Your task to perform on an android device: change timer sound Image 0: 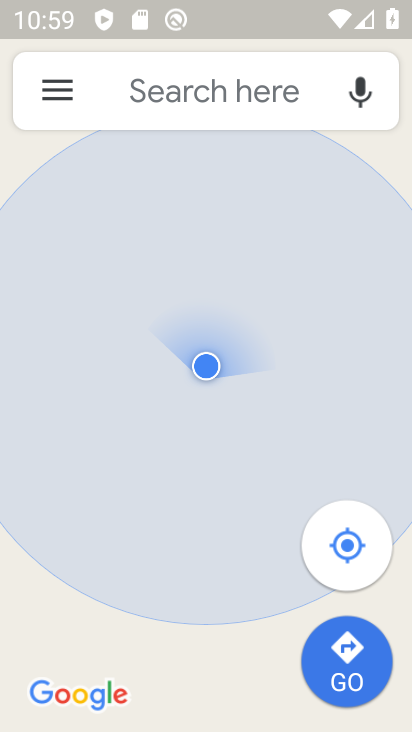
Step 0: press home button
Your task to perform on an android device: change timer sound Image 1: 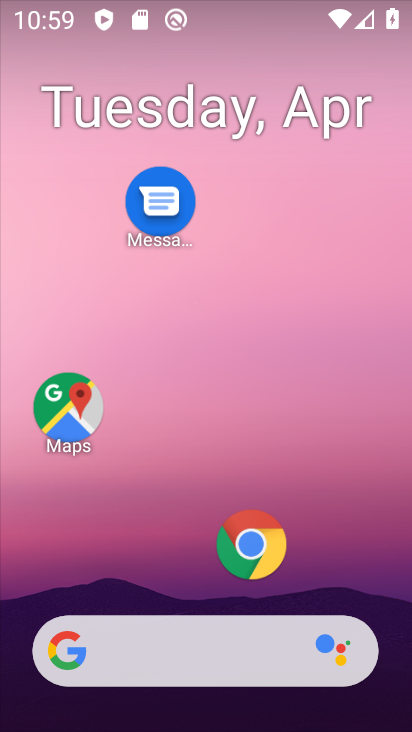
Step 1: drag from (153, 453) to (317, 0)
Your task to perform on an android device: change timer sound Image 2: 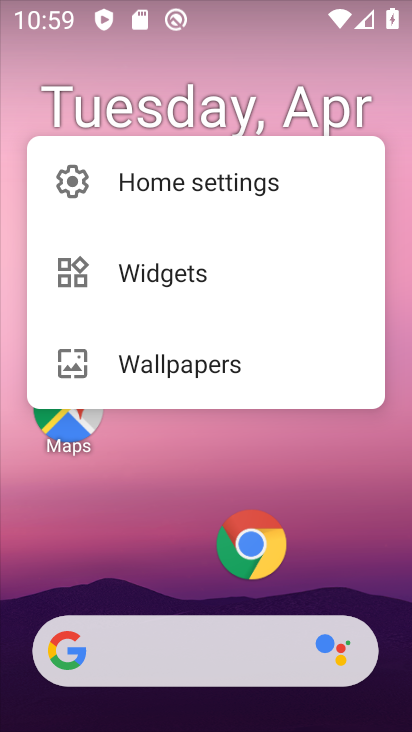
Step 2: click (199, 543)
Your task to perform on an android device: change timer sound Image 3: 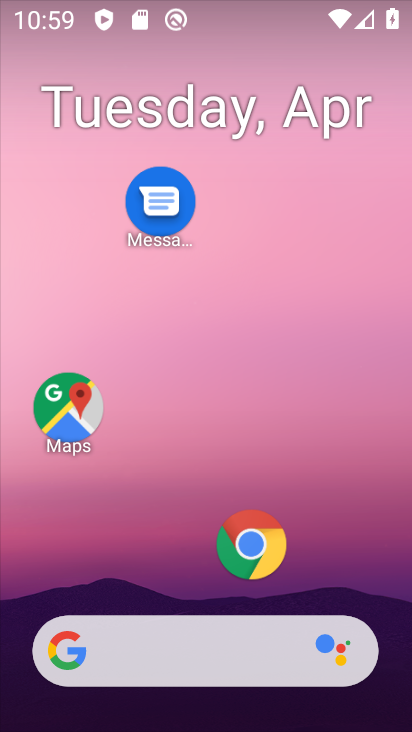
Step 3: drag from (160, 580) to (309, 7)
Your task to perform on an android device: change timer sound Image 4: 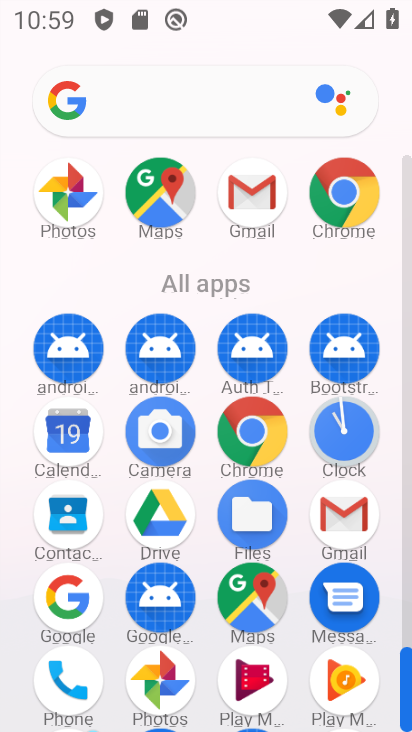
Step 4: click (335, 439)
Your task to perform on an android device: change timer sound Image 5: 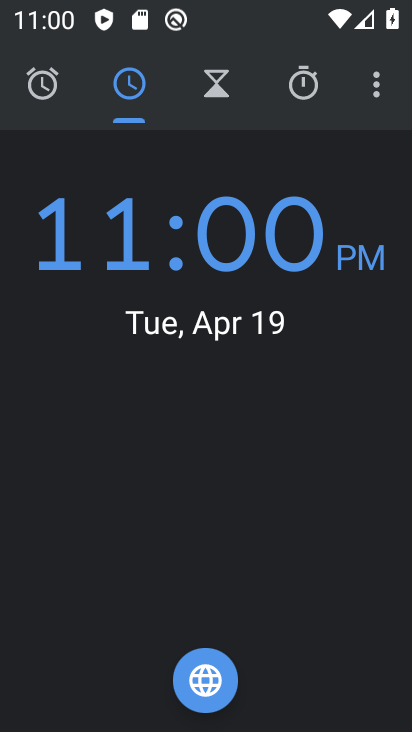
Step 5: click (361, 102)
Your task to perform on an android device: change timer sound Image 6: 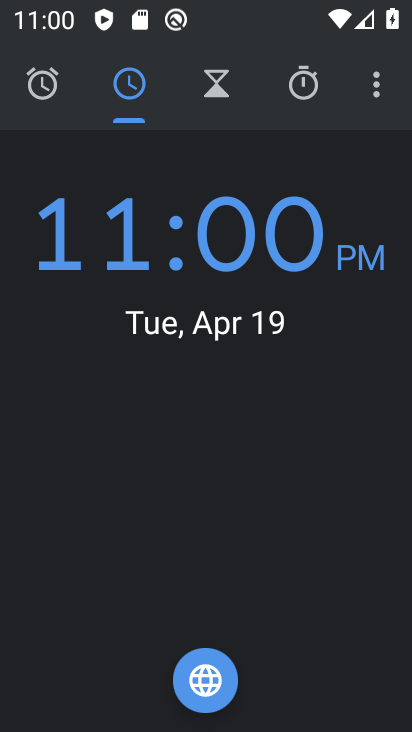
Step 6: click (376, 102)
Your task to perform on an android device: change timer sound Image 7: 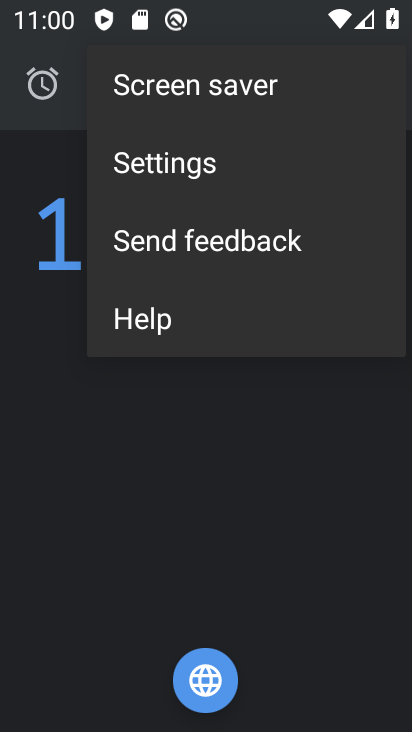
Step 7: click (211, 175)
Your task to perform on an android device: change timer sound Image 8: 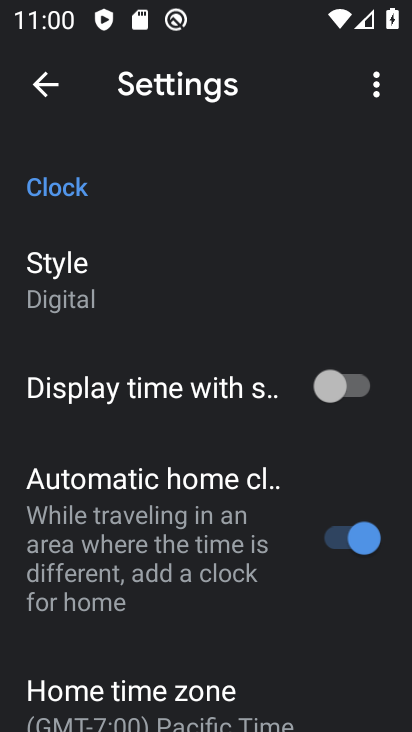
Step 8: drag from (171, 622) to (302, 10)
Your task to perform on an android device: change timer sound Image 9: 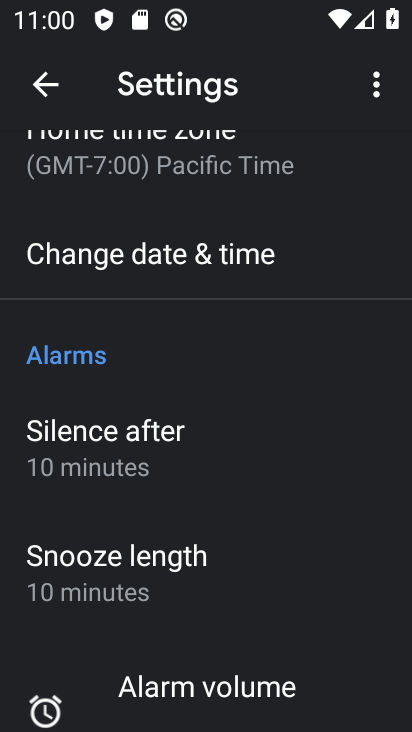
Step 9: drag from (145, 502) to (225, 101)
Your task to perform on an android device: change timer sound Image 10: 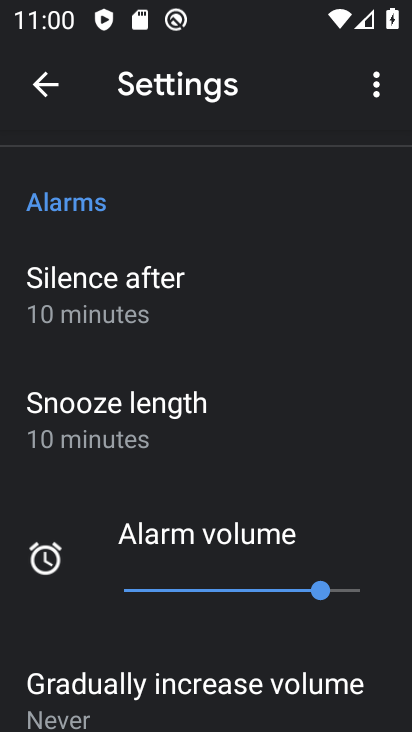
Step 10: drag from (144, 656) to (267, 60)
Your task to perform on an android device: change timer sound Image 11: 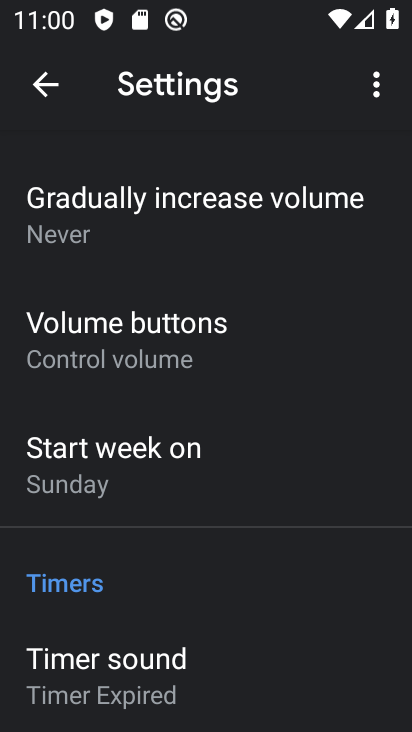
Step 11: click (110, 673)
Your task to perform on an android device: change timer sound Image 12: 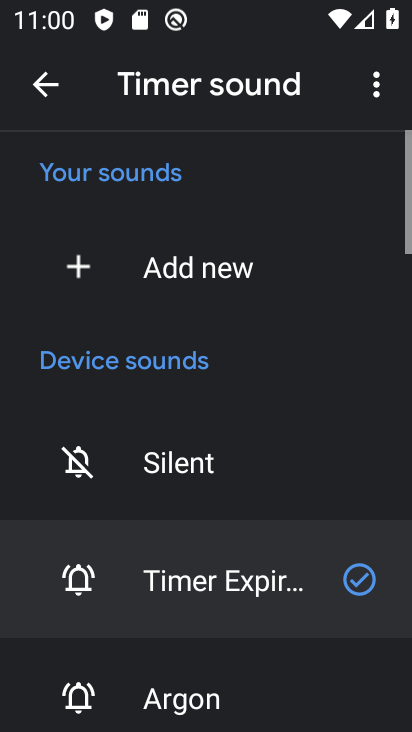
Step 12: drag from (162, 635) to (292, 348)
Your task to perform on an android device: change timer sound Image 13: 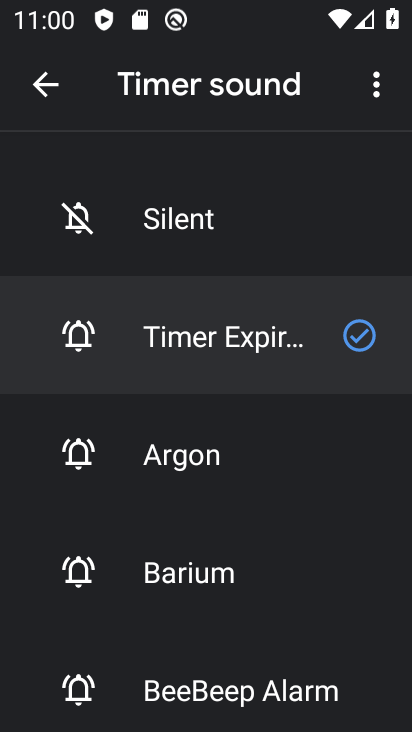
Step 13: click (195, 477)
Your task to perform on an android device: change timer sound Image 14: 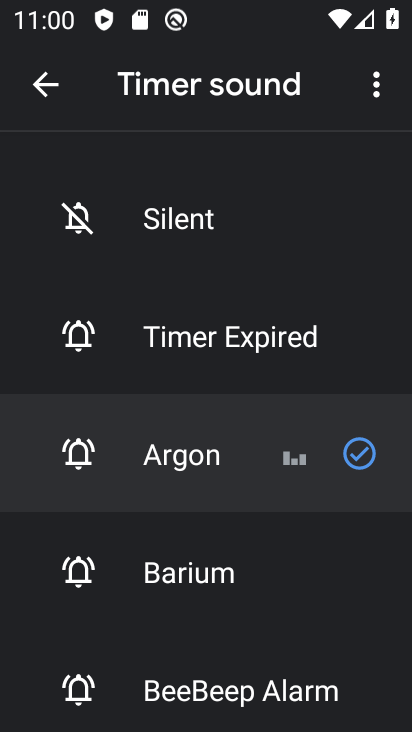
Step 14: task complete